Your task to perform on an android device: manage bookmarks in the chrome app Image 0: 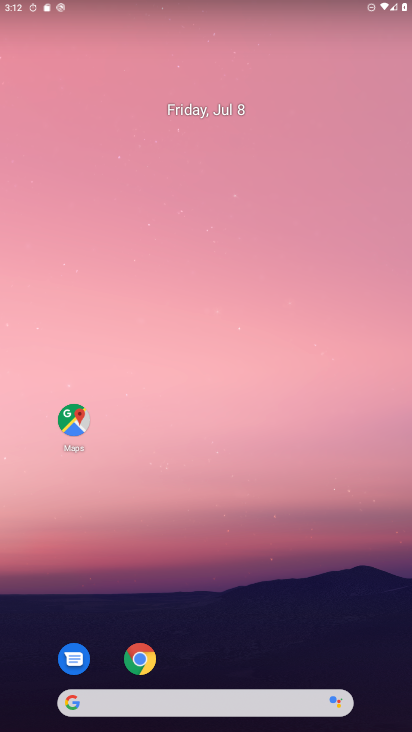
Step 0: click (139, 658)
Your task to perform on an android device: manage bookmarks in the chrome app Image 1: 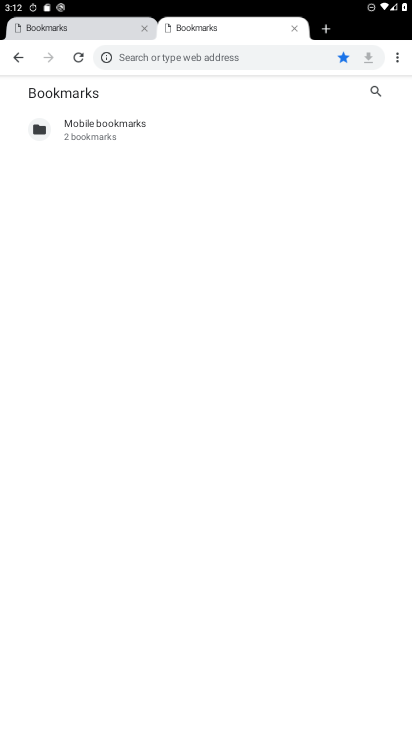
Step 1: click (395, 56)
Your task to perform on an android device: manage bookmarks in the chrome app Image 2: 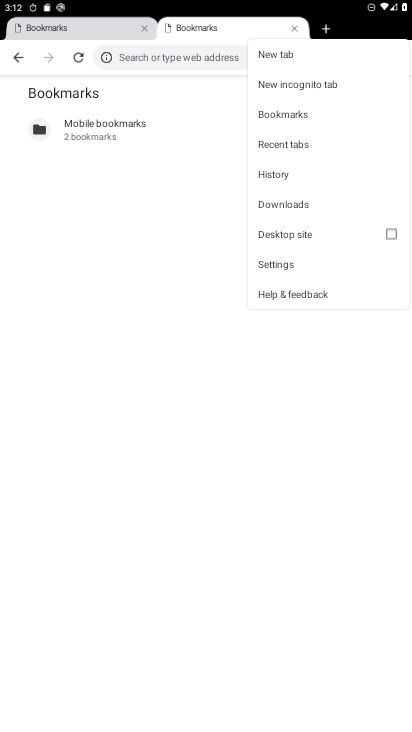
Step 2: click (275, 118)
Your task to perform on an android device: manage bookmarks in the chrome app Image 3: 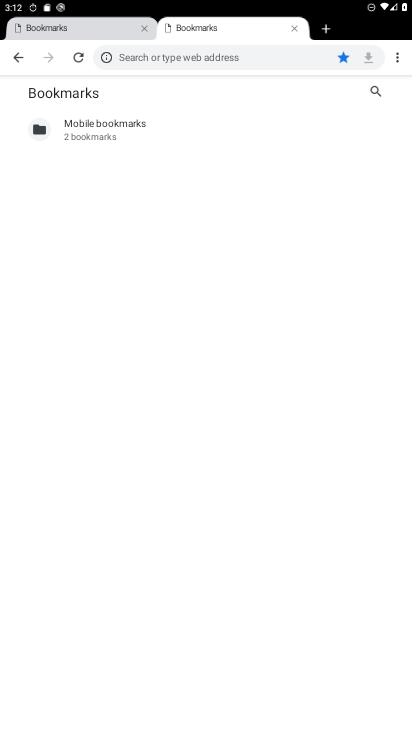
Step 3: click (395, 58)
Your task to perform on an android device: manage bookmarks in the chrome app Image 4: 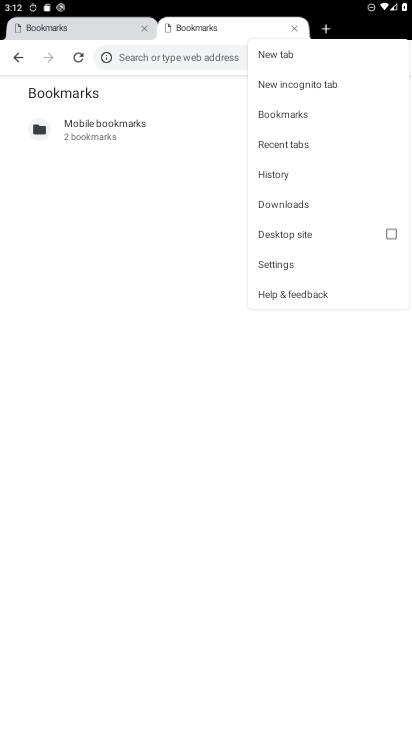
Step 4: click (193, 223)
Your task to perform on an android device: manage bookmarks in the chrome app Image 5: 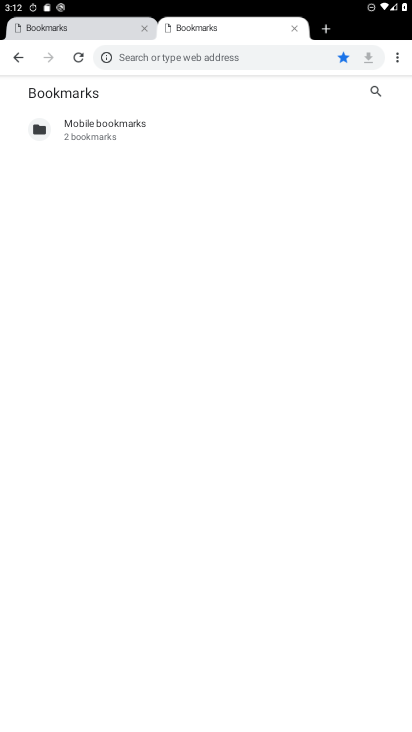
Step 5: click (164, 125)
Your task to perform on an android device: manage bookmarks in the chrome app Image 6: 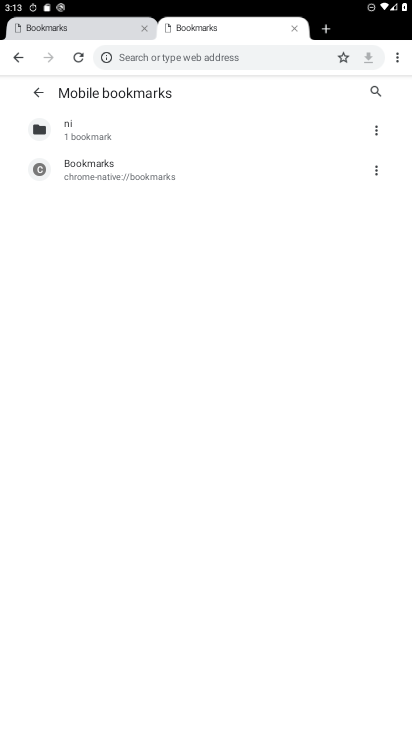
Step 6: click (376, 181)
Your task to perform on an android device: manage bookmarks in the chrome app Image 7: 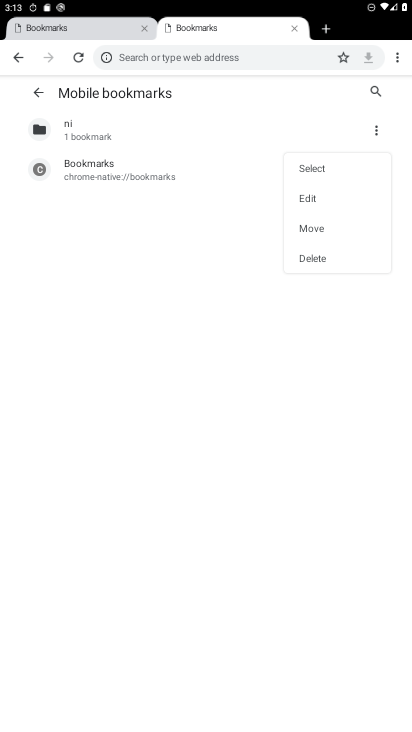
Step 7: click (336, 256)
Your task to perform on an android device: manage bookmarks in the chrome app Image 8: 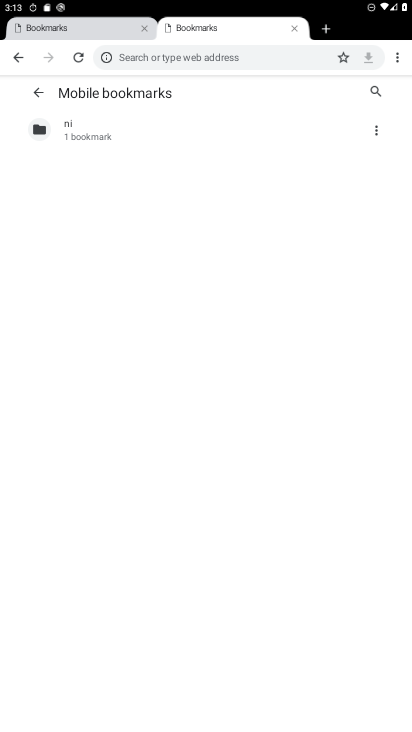
Step 8: task complete